Your task to perform on an android device: toggle notifications settings in the gmail app Image 0: 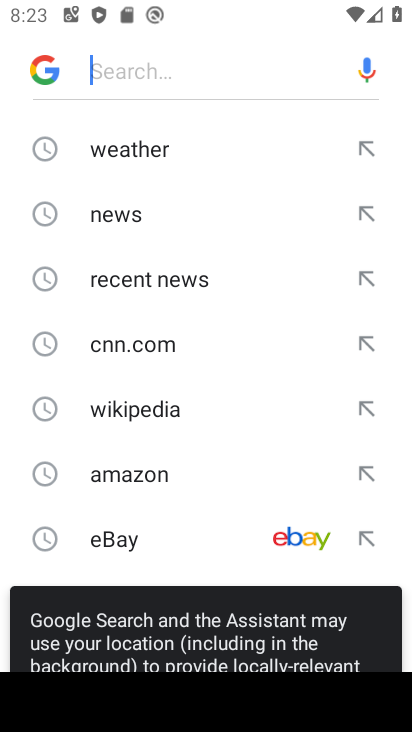
Step 0: press home button
Your task to perform on an android device: toggle notifications settings in the gmail app Image 1: 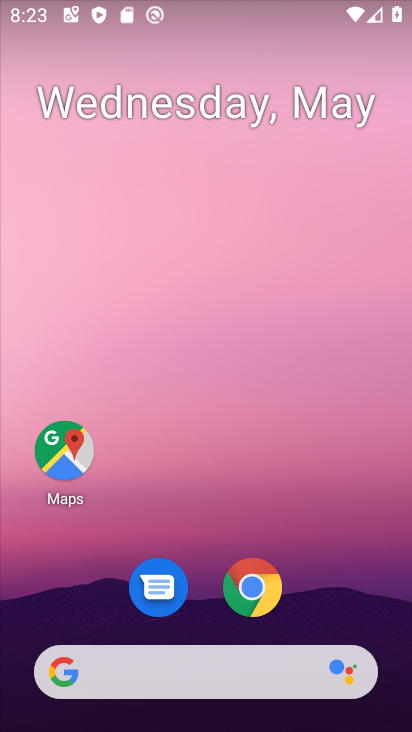
Step 1: drag from (375, 640) to (339, 60)
Your task to perform on an android device: toggle notifications settings in the gmail app Image 2: 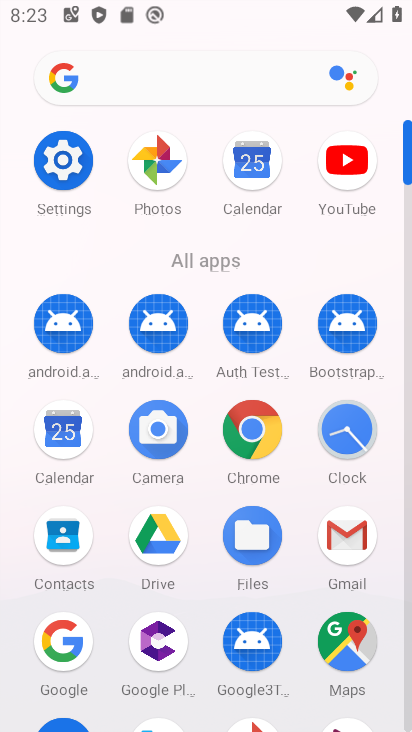
Step 2: click (406, 699)
Your task to perform on an android device: toggle notifications settings in the gmail app Image 3: 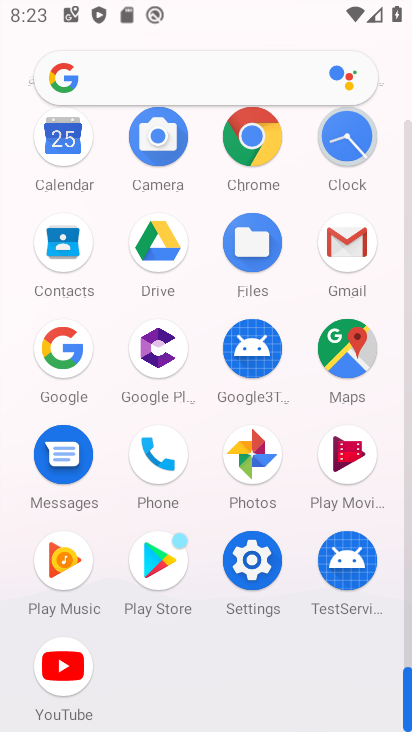
Step 3: click (348, 245)
Your task to perform on an android device: toggle notifications settings in the gmail app Image 4: 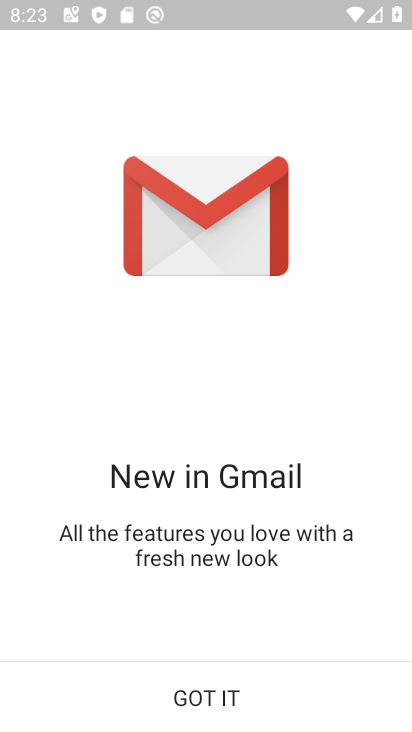
Step 4: click (193, 706)
Your task to perform on an android device: toggle notifications settings in the gmail app Image 5: 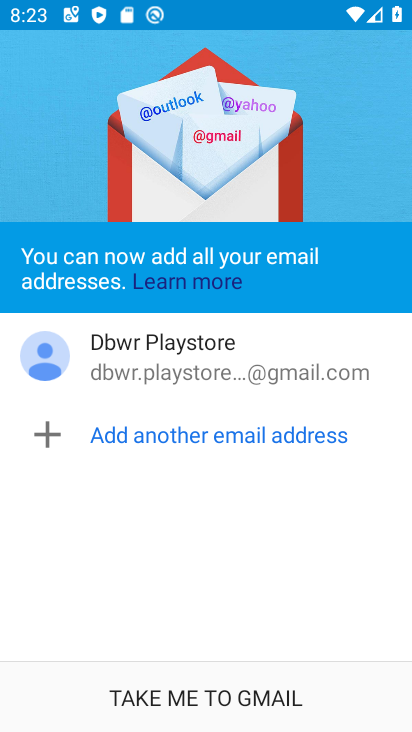
Step 5: click (193, 706)
Your task to perform on an android device: toggle notifications settings in the gmail app Image 6: 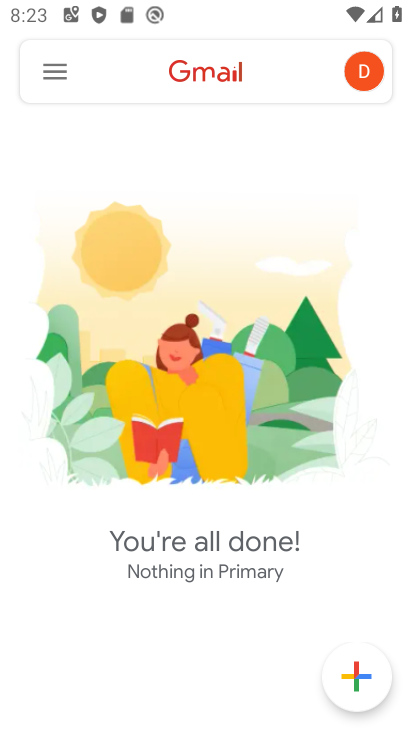
Step 6: click (59, 69)
Your task to perform on an android device: toggle notifications settings in the gmail app Image 7: 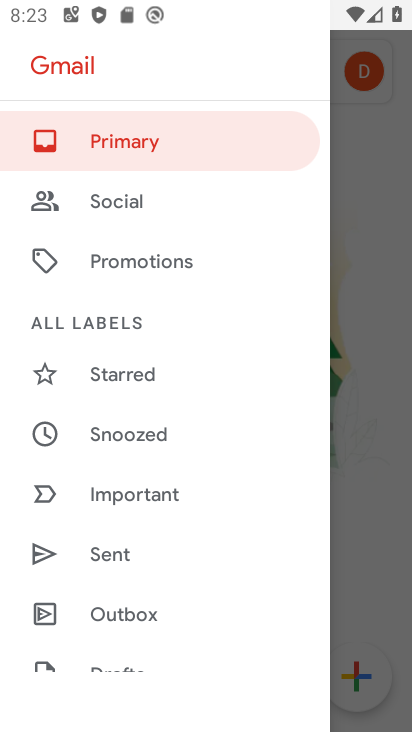
Step 7: drag from (173, 527) to (199, 150)
Your task to perform on an android device: toggle notifications settings in the gmail app Image 8: 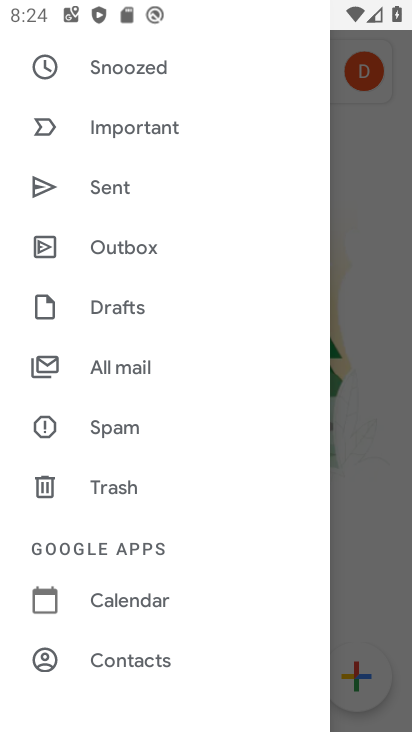
Step 8: drag from (209, 627) to (223, 248)
Your task to perform on an android device: toggle notifications settings in the gmail app Image 9: 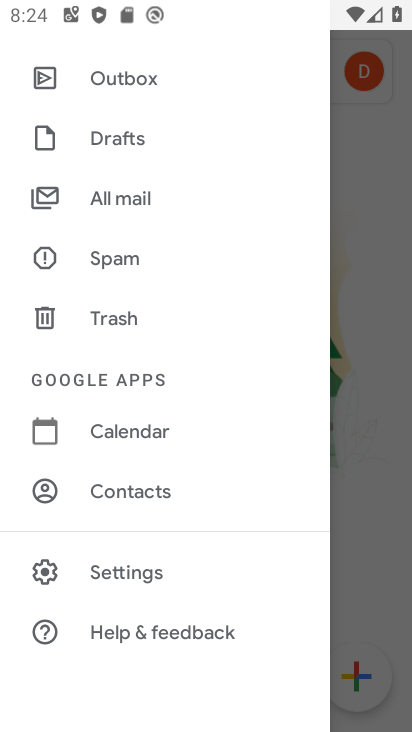
Step 9: click (111, 577)
Your task to perform on an android device: toggle notifications settings in the gmail app Image 10: 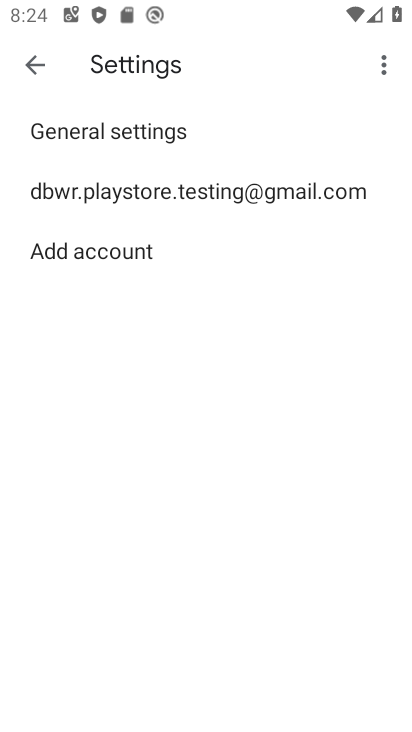
Step 10: click (187, 192)
Your task to perform on an android device: toggle notifications settings in the gmail app Image 11: 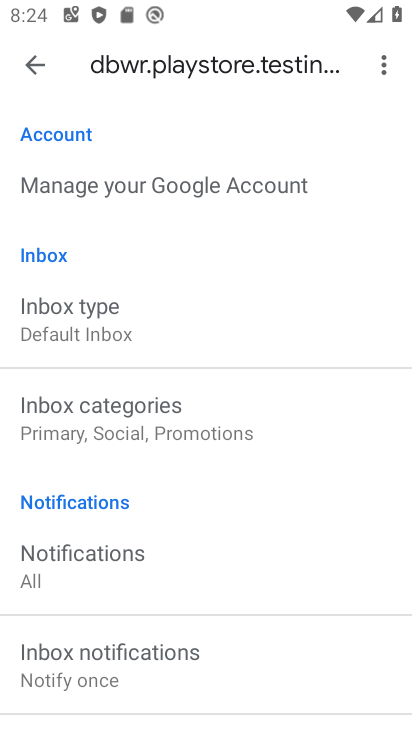
Step 11: drag from (224, 561) to (263, 185)
Your task to perform on an android device: toggle notifications settings in the gmail app Image 12: 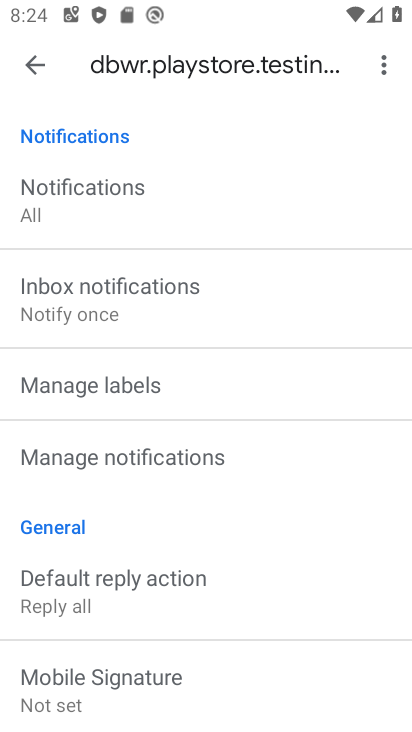
Step 12: click (105, 463)
Your task to perform on an android device: toggle notifications settings in the gmail app Image 13: 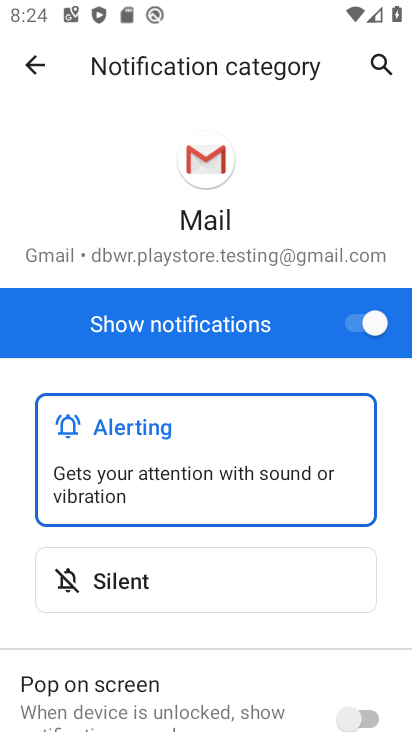
Step 13: click (351, 323)
Your task to perform on an android device: toggle notifications settings in the gmail app Image 14: 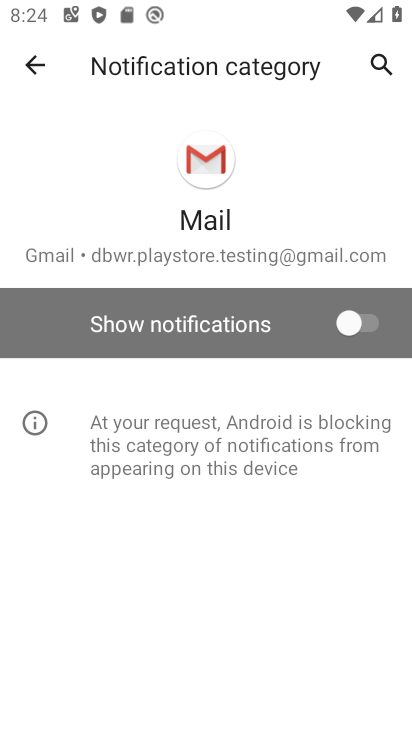
Step 14: task complete